Your task to perform on an android device: Search for a runner rug on Crate & Barrel Image 0: 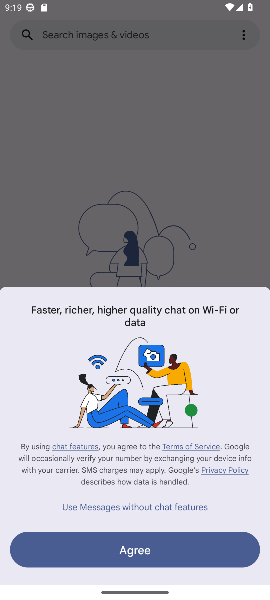
Step 0: press home button
Your task to perform on an android device: Search for a runner rug on Crate & Barrel Image 1: 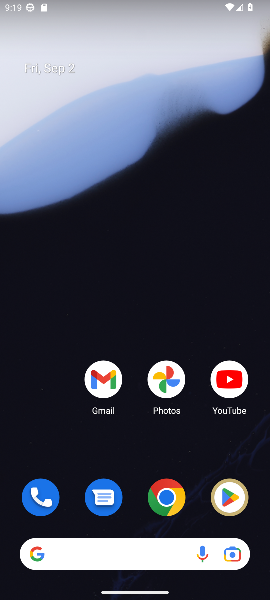
Step 1: drag from (129, 511) to (127, 158)
Your task to perform on an android device: Search for a runner rug on Crate & Barrel Image 2: 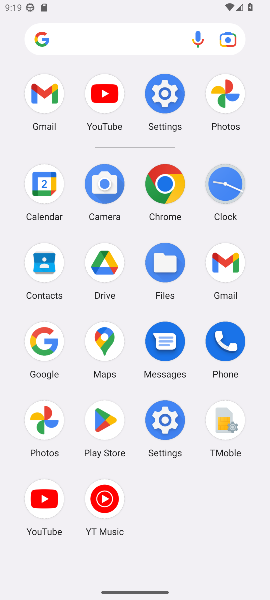
Step 2: click (46, 338)
Your task to perform on an android device: Search for a runner rug on Crate & Barrel Image 3: 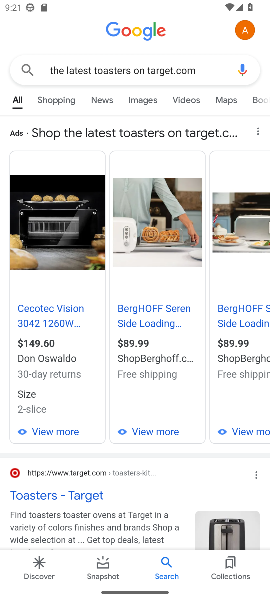
Step 3: click (155, 73)
Your task to perform on an android device: Search for a runner rug on Crate & Barrel Image 4: 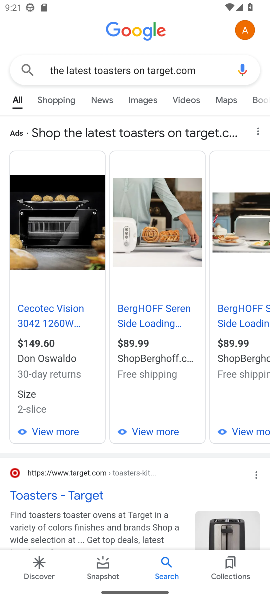
Step 4: click (155, 73)
Your task to perform on an android device: Search for a runner rug on Crate & Barrel Image 5: 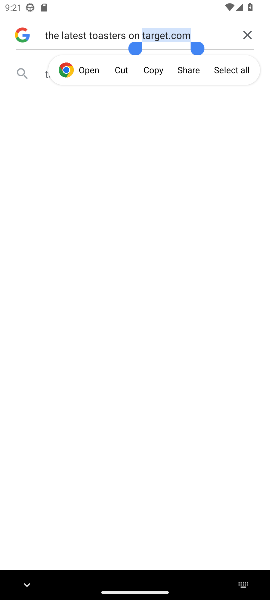
Step 5: click (245, 36)
Your task to perform on an android device: Search for a runner rug on Crate & Barrel Image 6: 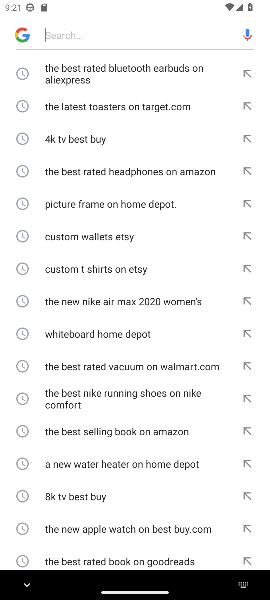
Step 6: type "a runner rug on Crate & Barrel"
Your task to perform on an android device: Search for a runner rug on Crate & Barrel Image 7: 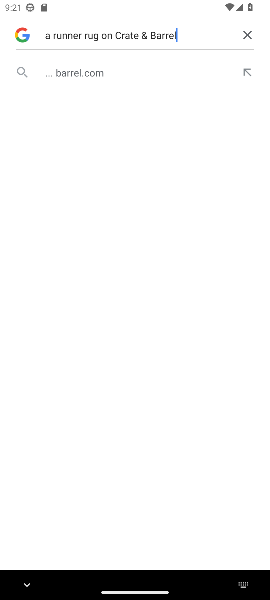
Step 7: click (64, 70)
Your task to perform on an android device: Search for a runner rug on Crate & Barrel Image 8: 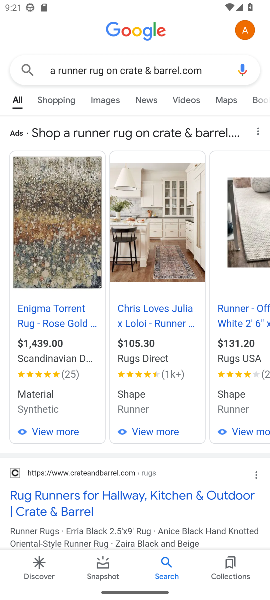
Step 8: task complete